Your task to perform on an android device: snooze an email in the gmail app Image 0: 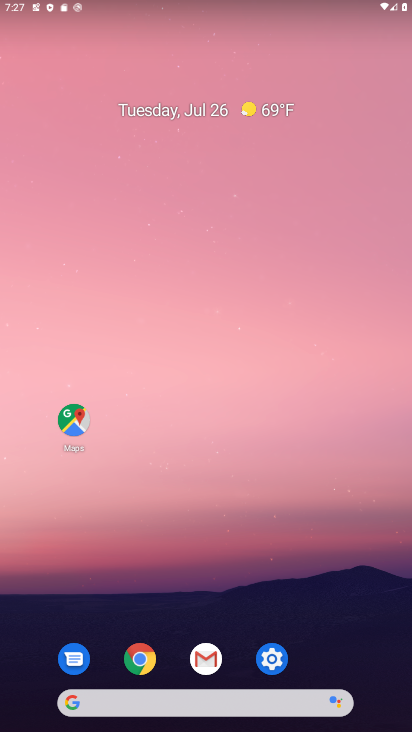
Step 0: click (202, 649)
Your task to perform on an android device: snooze an email in the gmail app Image 1: 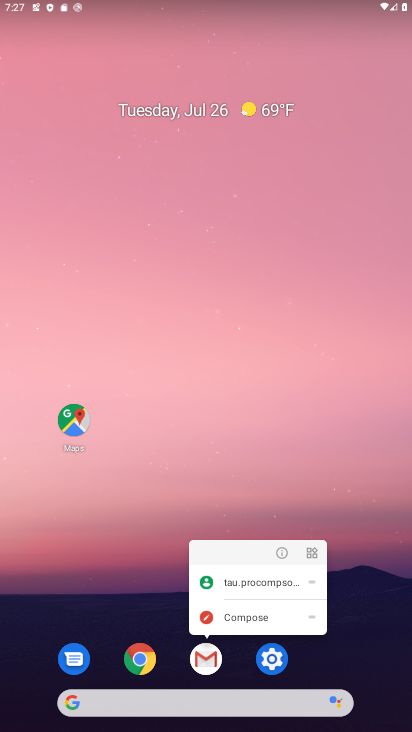
Step 1: click (215, 655)
Your task to perform on an android device: snooze an email in the gmail app Image 2: 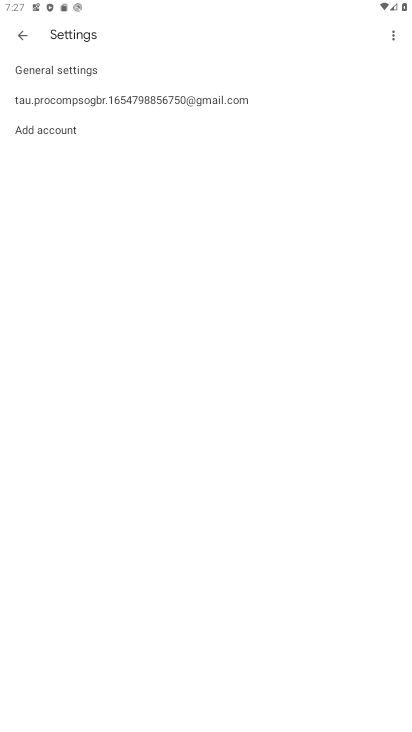
Step 2: click (15, 44)
Your task to perform on an android device: snooze an email in the gmail app Image 3: 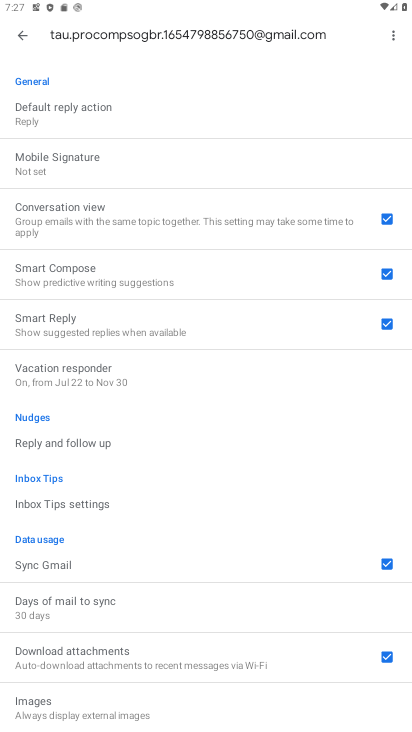
Step 3: click (18, 43)
Your task to perform on an android device: snooze an email in the gmail app Image 4: 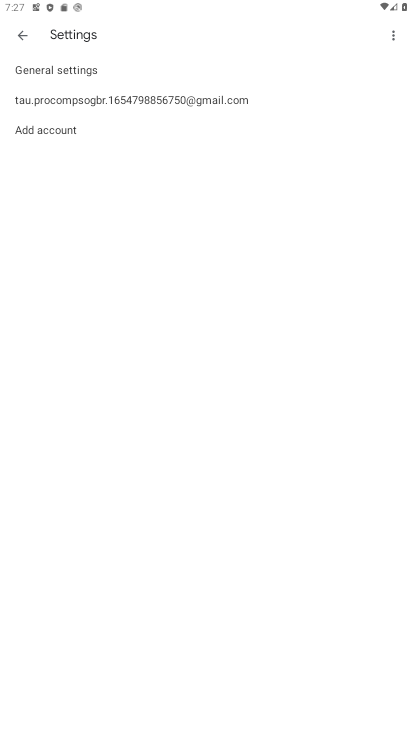
Step 4: click (20, 43)
Your task to perform on an android device: snooze an email in the gmail app Image 5: 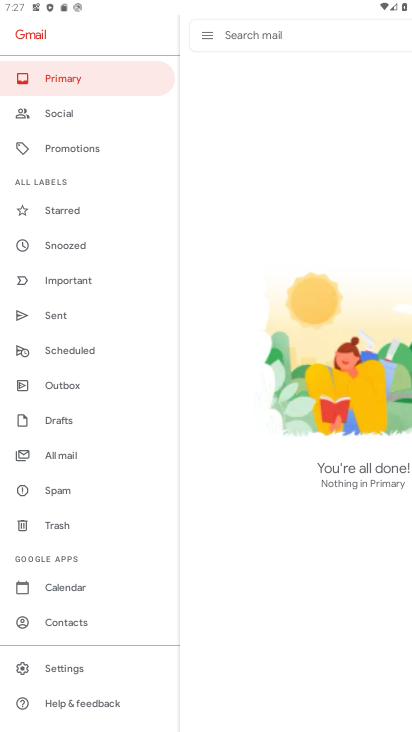
Step 5: click (54, 242)
Your task to perform on an android device: snooze an email in the gmail app Image 6: 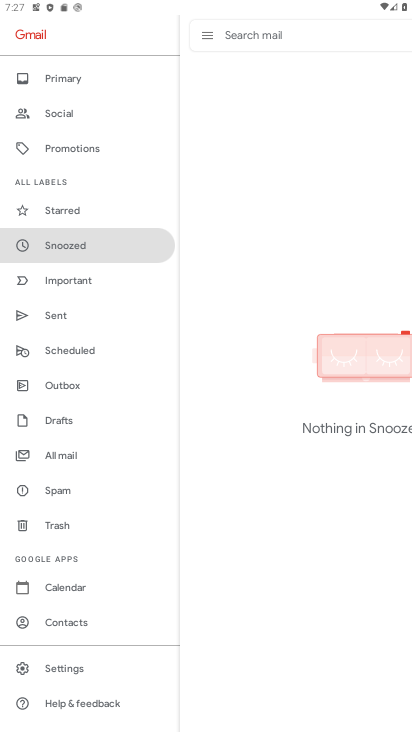
Step 6: task complete